Your task to perform on an android device: turn on javascript in the chrome app Image 0: 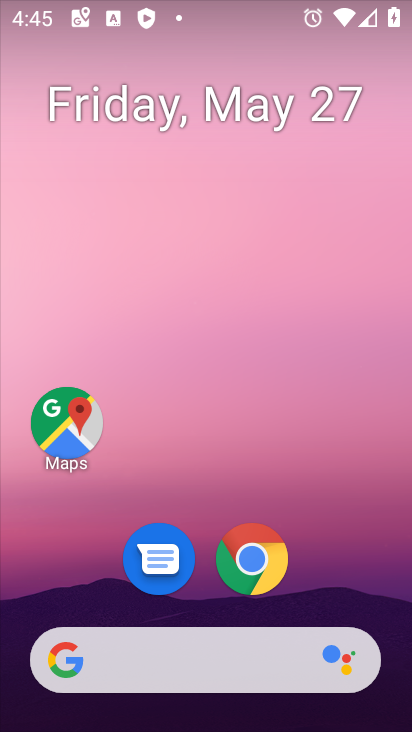
Step 0: drag from (323, 642) to (297, 3)
Your task to perform on an android device: turn on javascript in the chrome app Image 1: 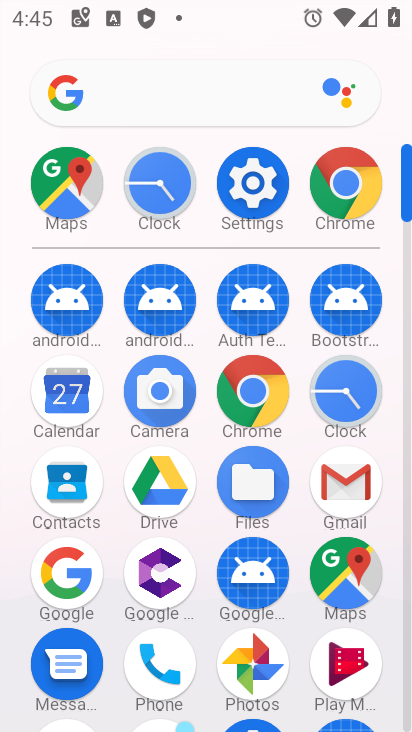
Step 1: click (248, 403)
Your task to perform on an android device: turn on javascript in the chrome app Image 2: 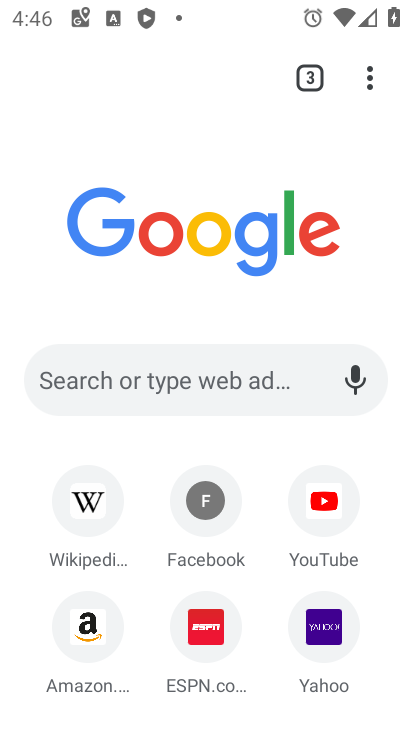
Step 2: drag from (374, 62) to (165, 623)
Your task to perform on an android device: turn on javascript in the chrome app Image 3: 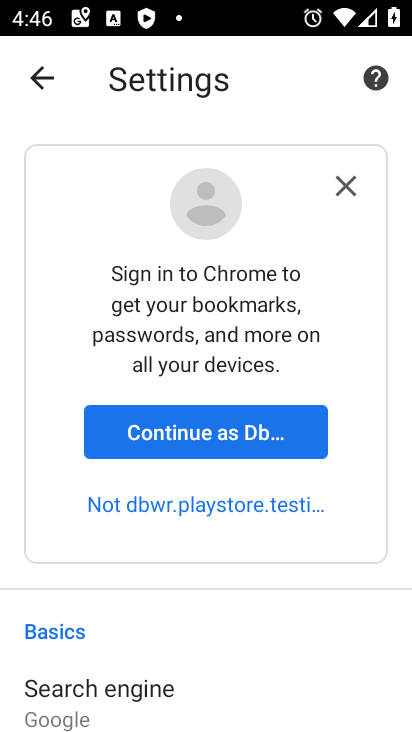
Step 3: drag from (242, 656) to (236, 150)
Your task to perform on an android device: turn on javascript in the chrome app Image 4: 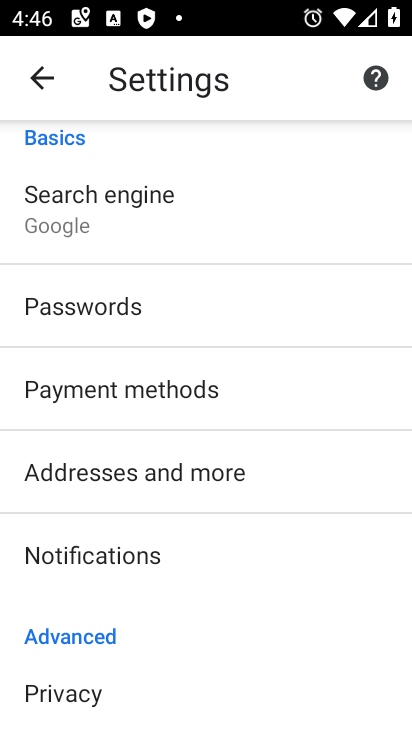
Step 4: drag from (263, 594) to (285, 201)
Your task to perform on an android device: turn on javascript in the chrome app Image 5: 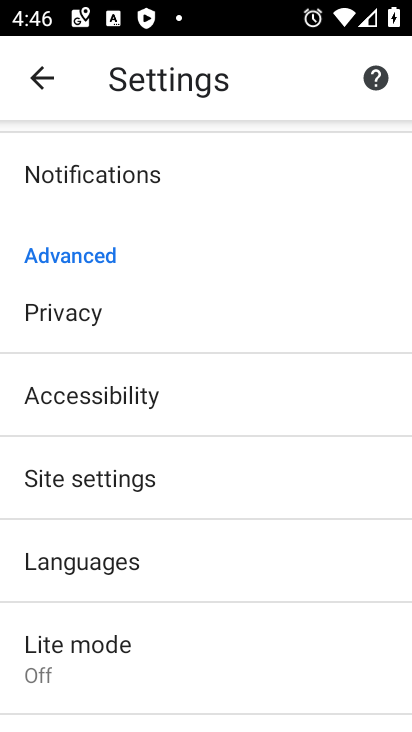
Step 5: drag from (275, 698) to (242, 132)
Your task to perform on an android device: turn on javascript in the chrome app Image 6: 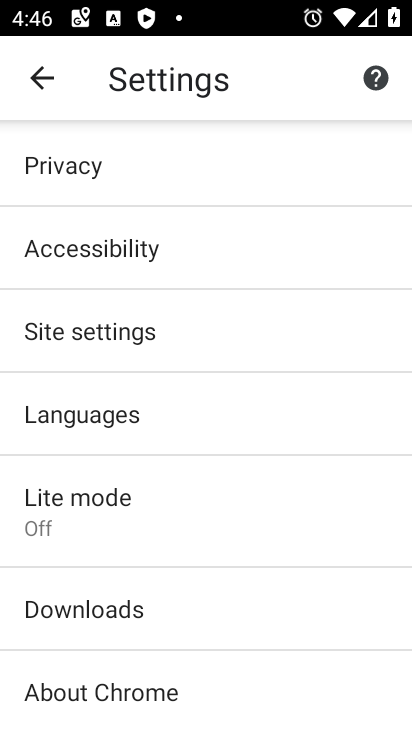
Step 6: click (173, 334)
Your task to perform on an android device: turn on javascript in the chrome app Image 7: 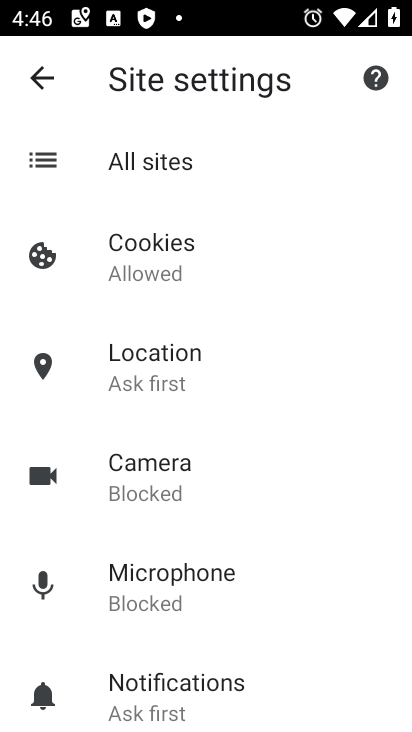
Step 7: drag from (269, 257) to (268, 141)
Your task to perform on an android device: turn on javascript in the chrome app Image 8: 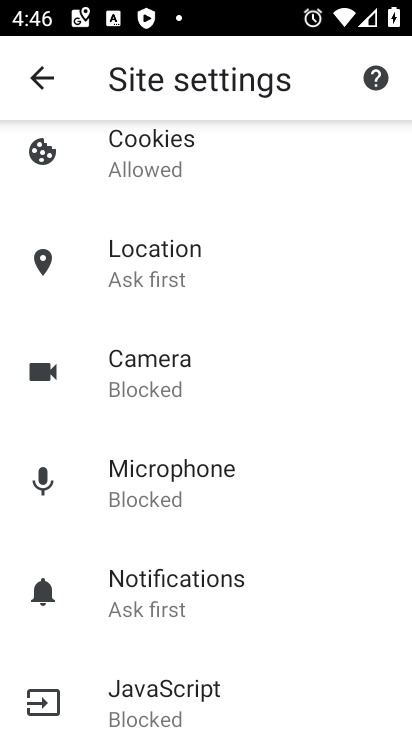
Step 8: click (232, 704)
Your task to perform on an android device: turn on javascript in the chrome app Image 9: 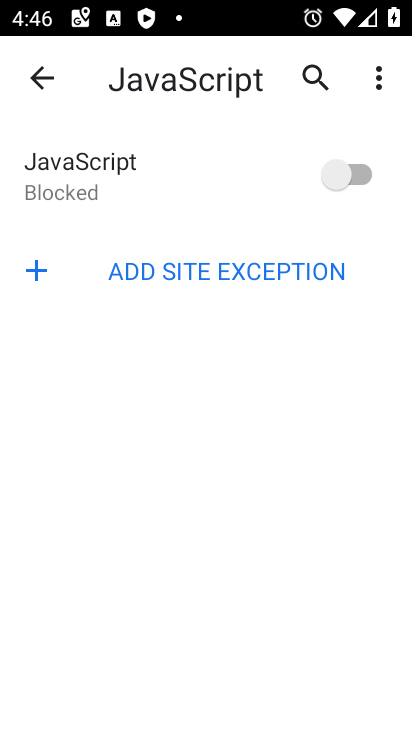
Step 9: click (355, 174)
Your task to perform on an android device: turn on javascript in the chrome app Image 10: 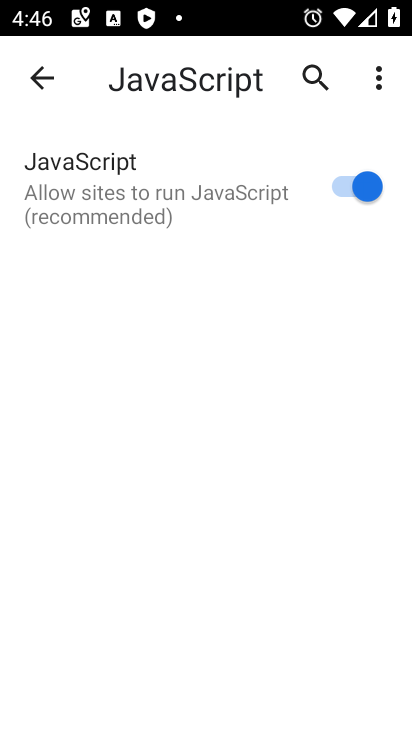
Step 10: task complete